Your task to perform on an android device: check storage Image 0: 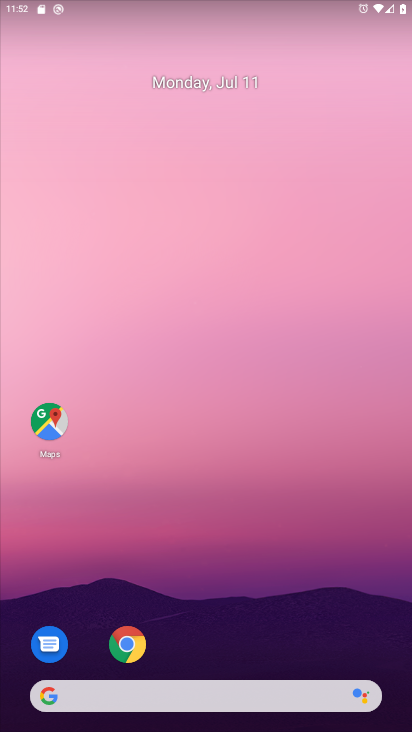
Step 0: drag from (214, 403) to (258, 17)
Your task to perform on an android device: check storage Image 1: 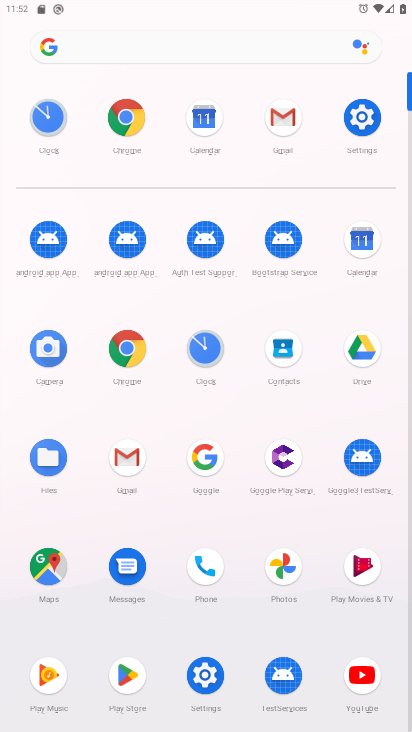
Step 1: click (364, 129)
Your task to perform on an android device: check storage Image 2: 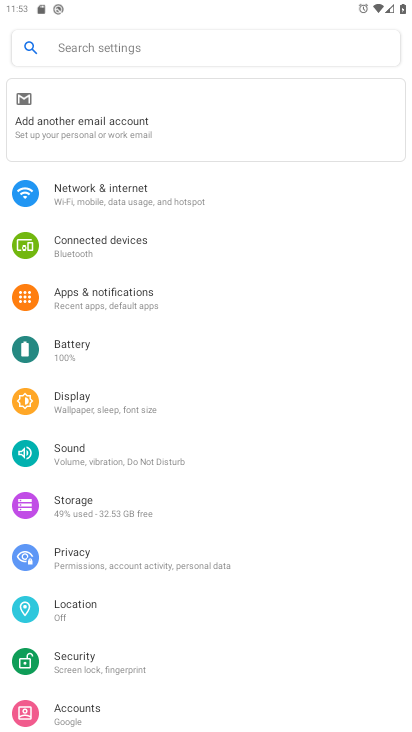
Step 2: click (95, 500)
Your task to perform on an android device: check storage Image 3: 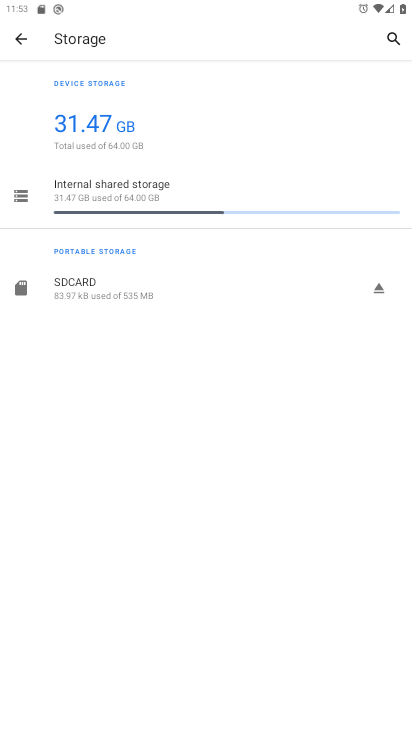
Step 3: task complete